Your task to perform on an android device: Go to Reddit.com Image 0: 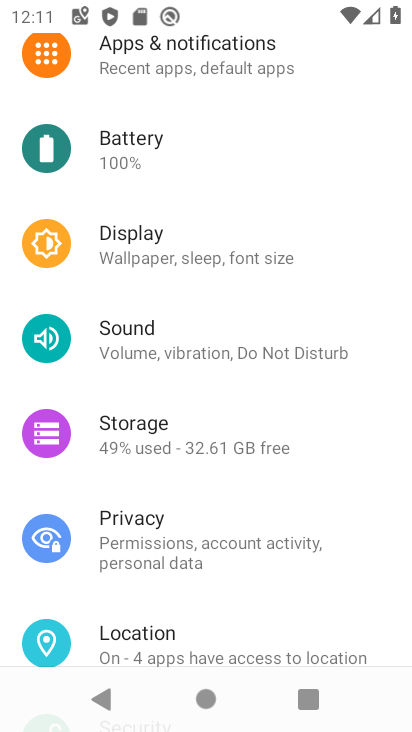
Step 0: press home button
Your task to perform on an android device: Go to Reddit.com Image 1: 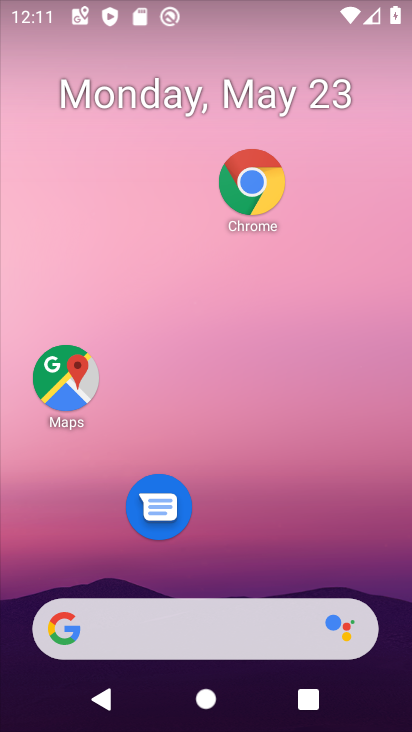
Step 1: click (220, 632)
Your task to perform on an android device: Go to Reddit.com Image 2: 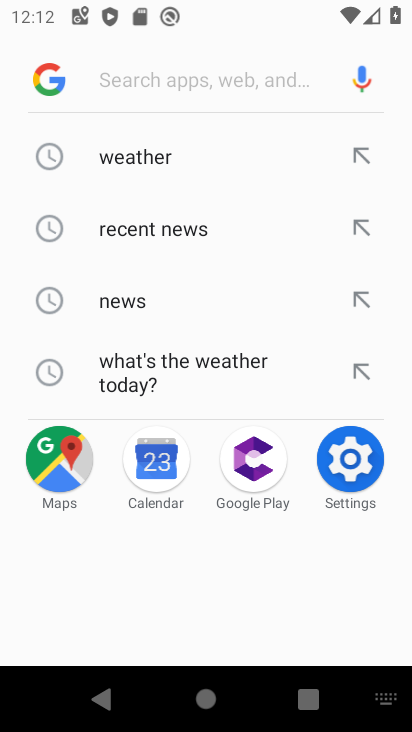
Step 2: type "reddit.com"
Your task to perform on an android device: Go to Reddit.com Image 3: 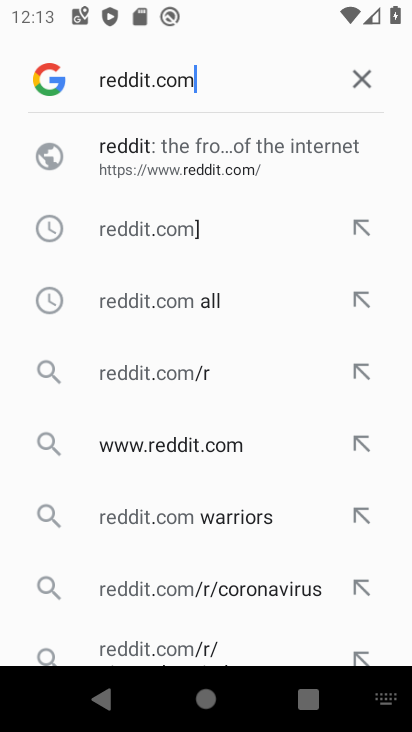
Step 3: click (289, 162)
Your task to perform on an android device: Go to Reddit.com Image 4: 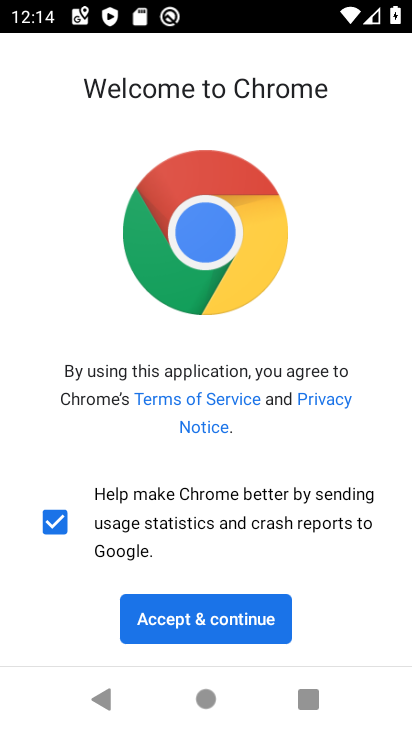
Step 4: click (216, 630)
Your task to perform on an android device: Go to Reddit.com Image 5: 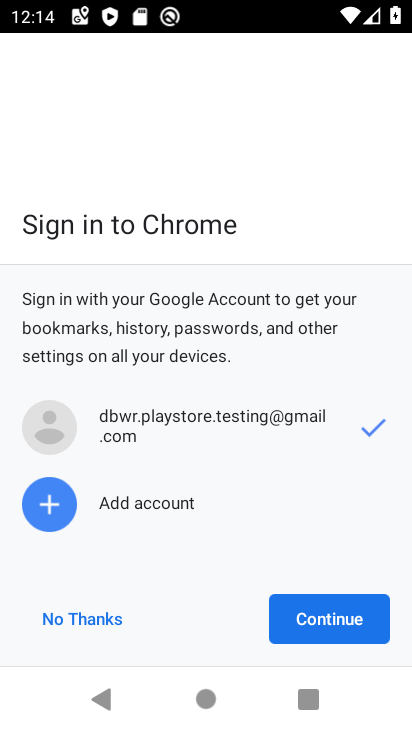
Step 5: click (324, 603)
Your task to perform on an android device: Go to Reddit.com Image 6: 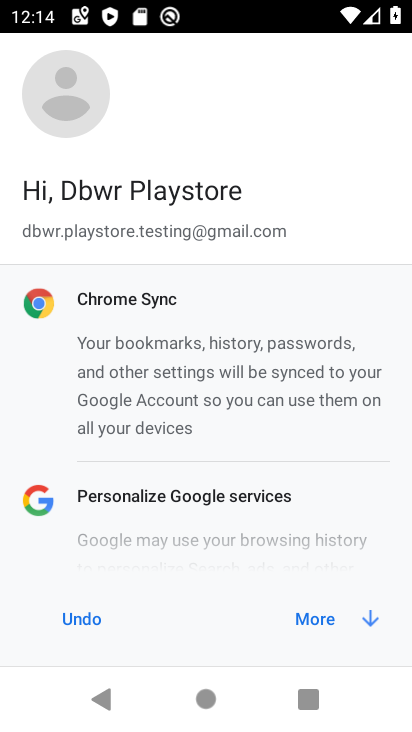
Step 6: click (325, 623)
Your task to perform on an android device: Go to Reddit.com Image 7: 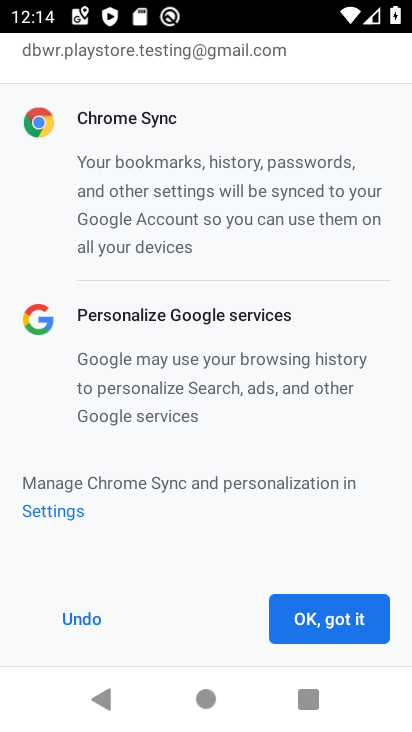
Step 7: click (325, 623)
Your task to perform on an android device: Go to Reddit.com Image 8: 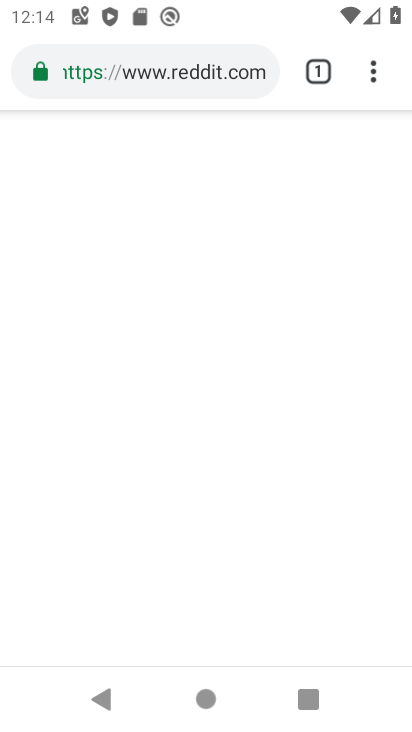
Step 8: task complete